Your task to perform on an android device: Show me the alarms in the clock app Image 0: 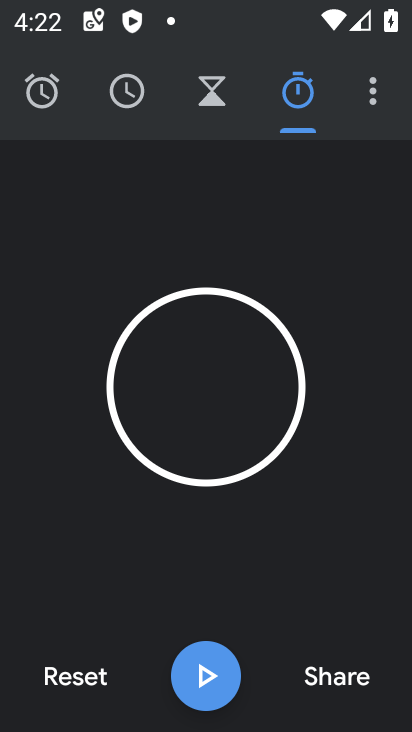
Step 0: click (44, 93)
Your task to perform on an android device: Show me the alarms in the clock app Image 1: 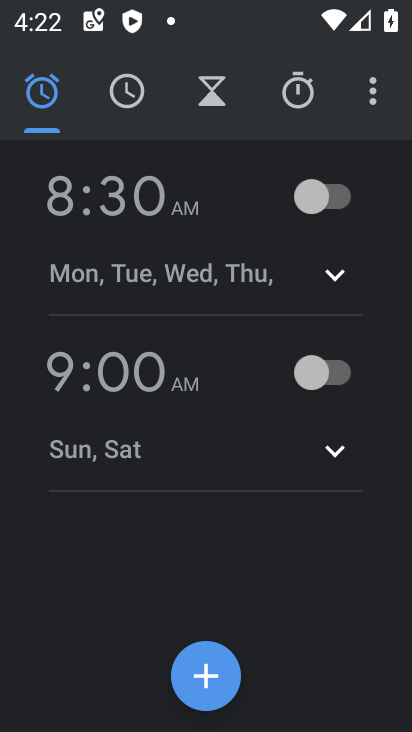
Step 1: task complete